Your task to perform on an android device: set an alarm Image 0: 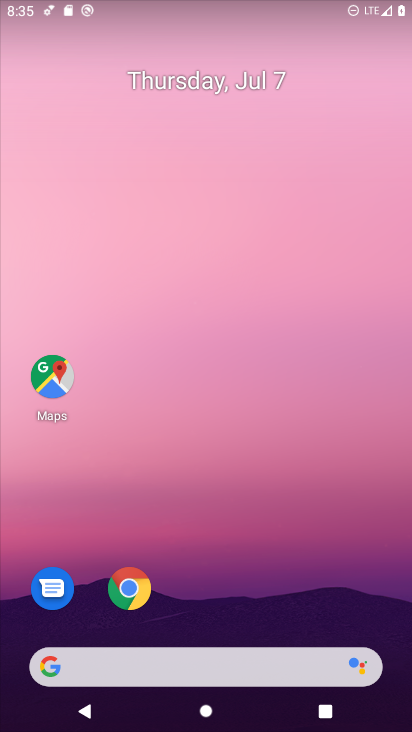
Step 0: drag from (184, 701) to (220, 366)
Your task to perform on an android device: set an alarm Image 1: 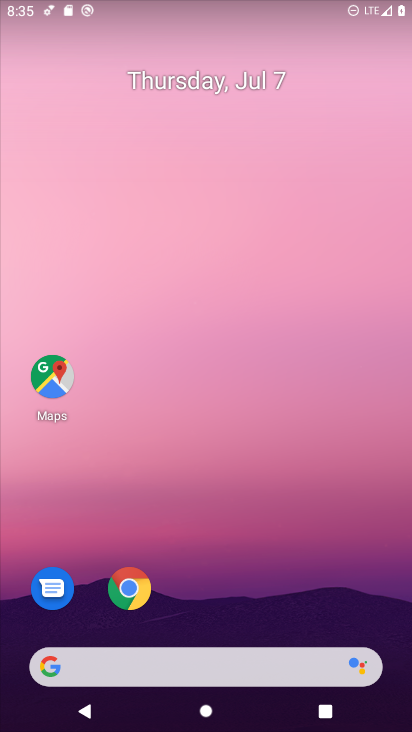
Step 1: drag from (165, 651) to (163, 191)
Your task to perform on an android device: set an alarm Image 2: 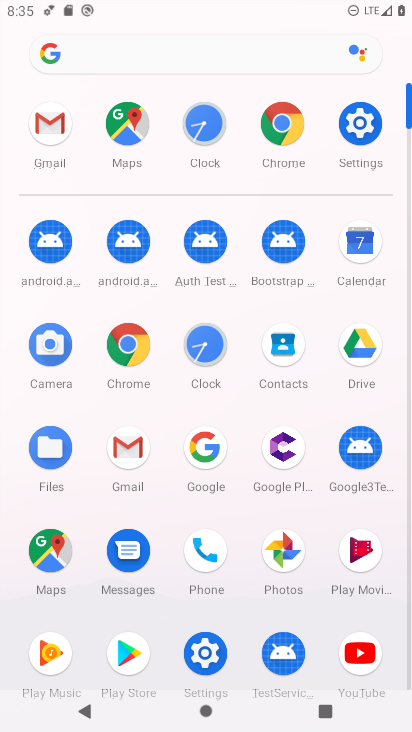
Step 2: click (194, 128)
Your task to perform on an android device: set an alarm Image 3: 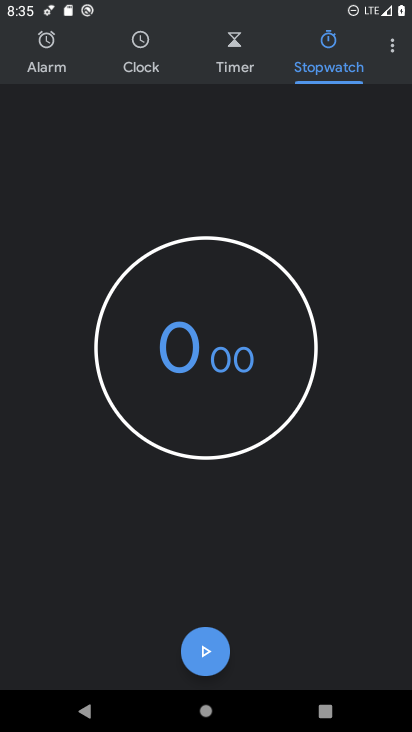
Step 3: click (42, 58)
Your task to perform on an android device: set an alarm Image 4: 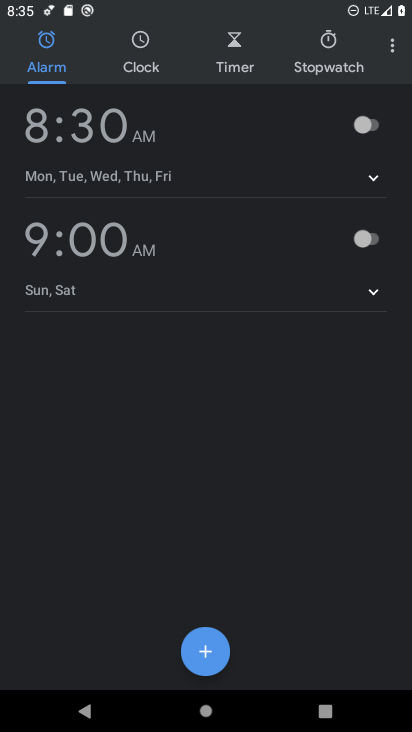
Step 4: click (389, 115)
Your task to perform on an android device: set an alarm Image 5: 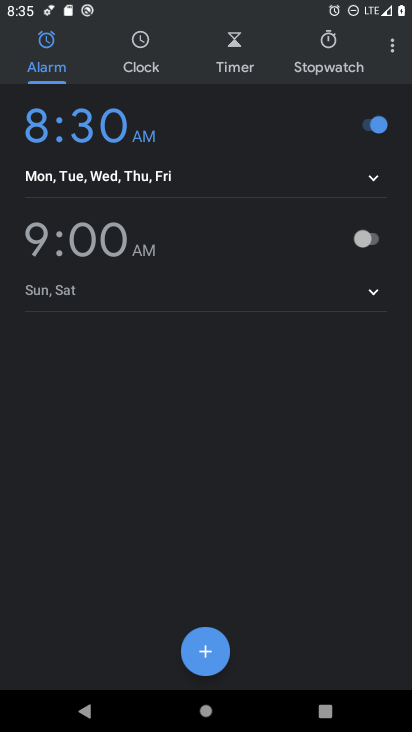
Step 5: task complete